Your task to perform on an android device: turn notification dots off Image 0: 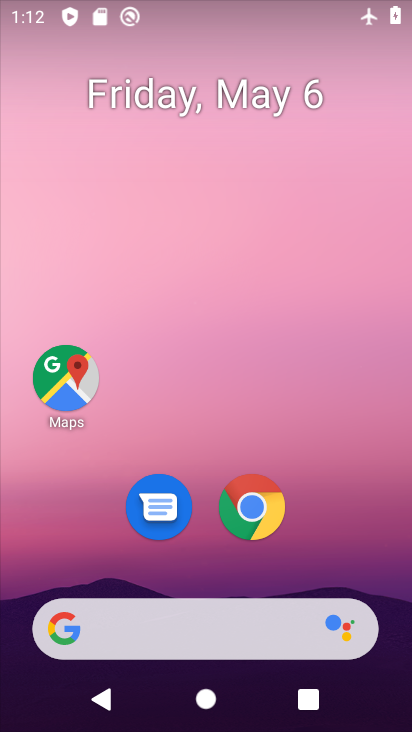
Step 0: drag from (157, 514) to (224, 194)
Your task to perform on an android device: turn notification dots off Image 1: 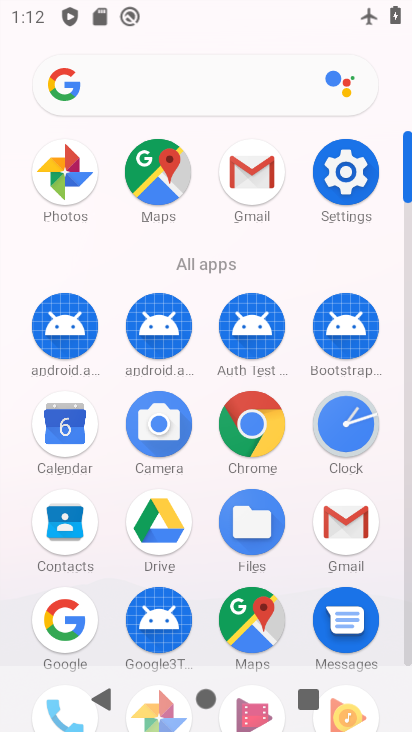
Step 1: click (361, 166)
Your task to perform on an android device: turn notification dots off Image 2: 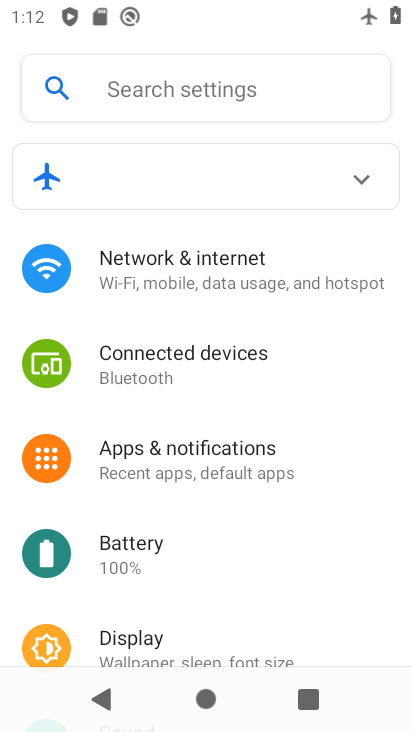
Step 2: drag from (128, 629) to (227, 262)
Your task to perform on an android device: turn notification dots off Image 3: 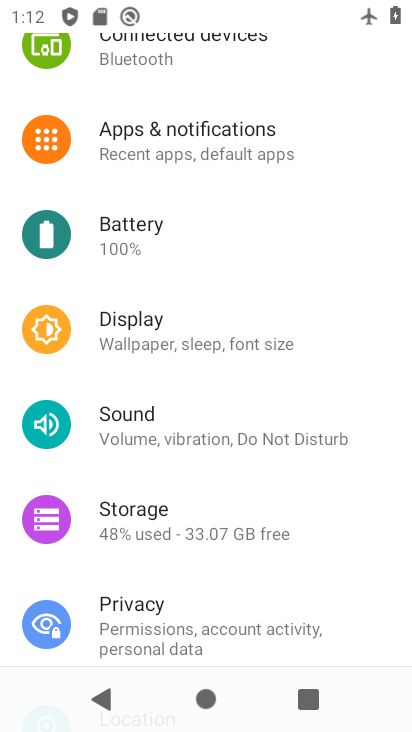
Step 3: click (208, 162)
Your task to perform on an android device: turn notification dots off Image 4: 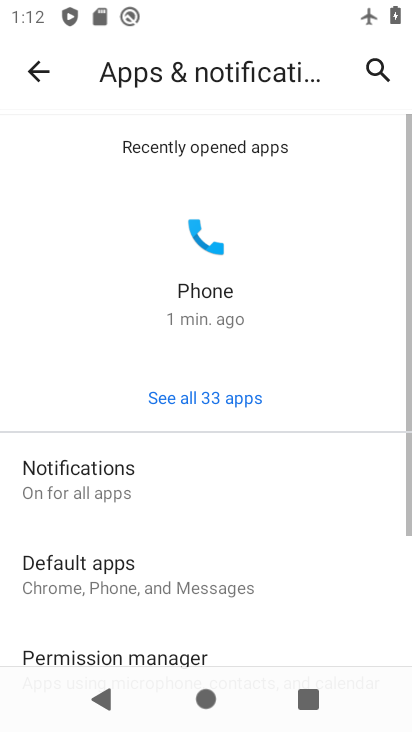
Step 4: drag from (162, 627) to (280, 241)
Your task to perform on an android device: turn notification dots off Image 5: 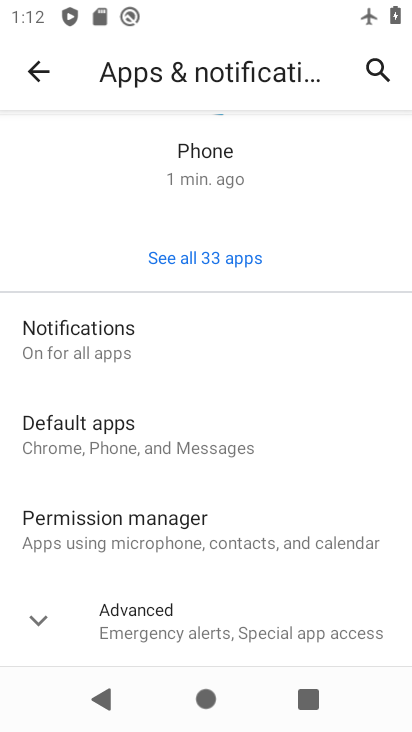
Step 5: click (158, 332)
Your task to perform on an android device: turn notification dots off Image 6: 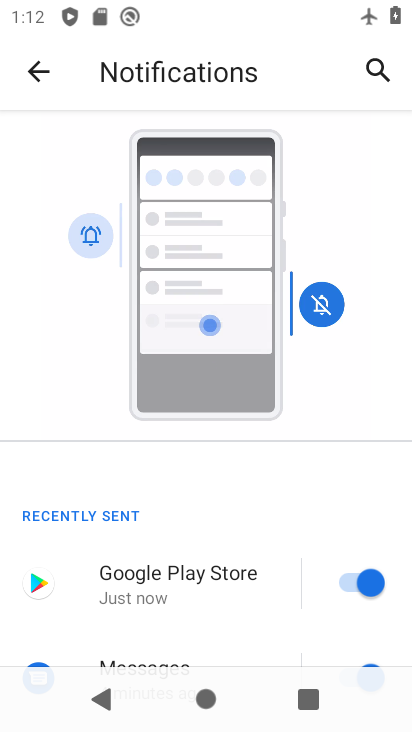
Step 6: drag from (188, 663) to (293, 176)
Your task to perform on an android device: turn notification dots off Image 7: 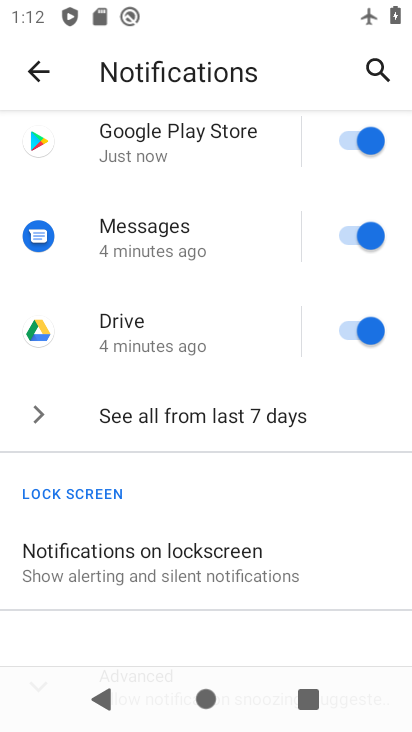
Step 7: drag from (197, 606) to (305, 186)
Your task to perform on an android device: turn notification dots off Image 8: 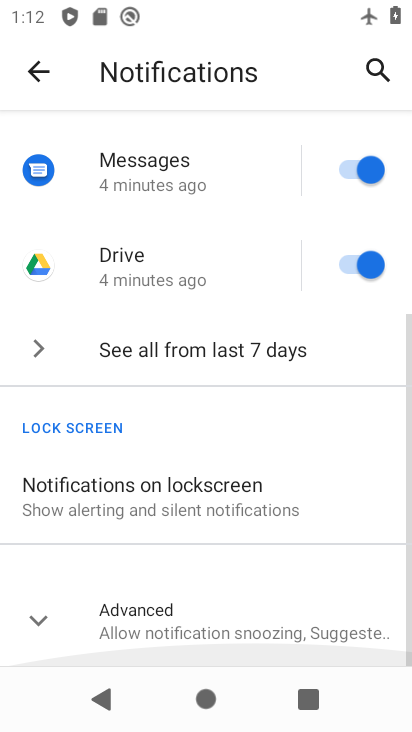
Step 8: click (206, 623)
Your task to perform on an android device: turn notification dots off Image 9: 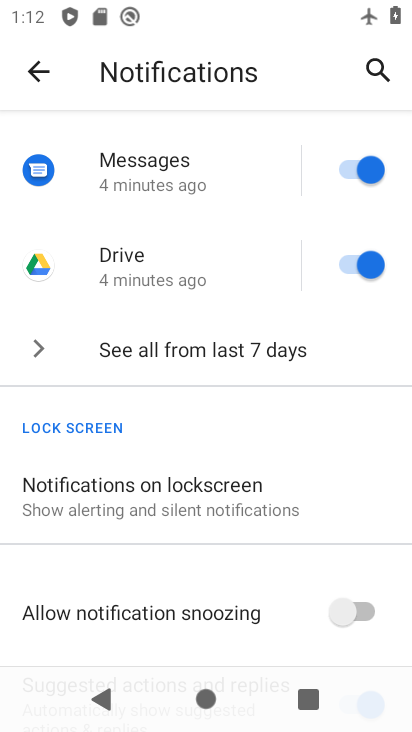
Step 9: drag from (140, 654) to (255, 129)
Your task to perform on an android device: turn notification dots off Image 10: 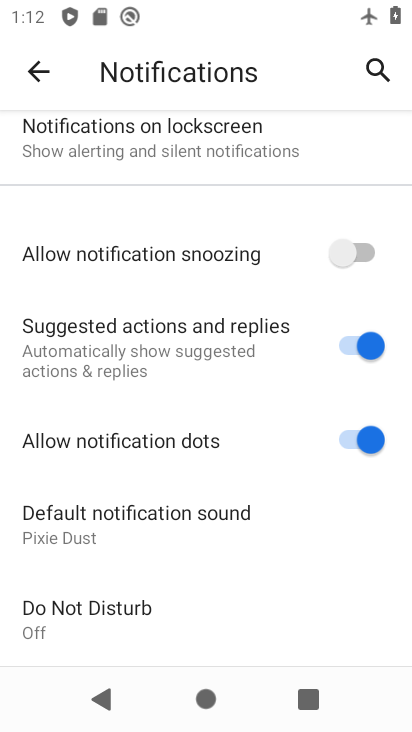
Step 10: click (353, 431)
Your task to perform on an android device: turn notification dots off Image 11: 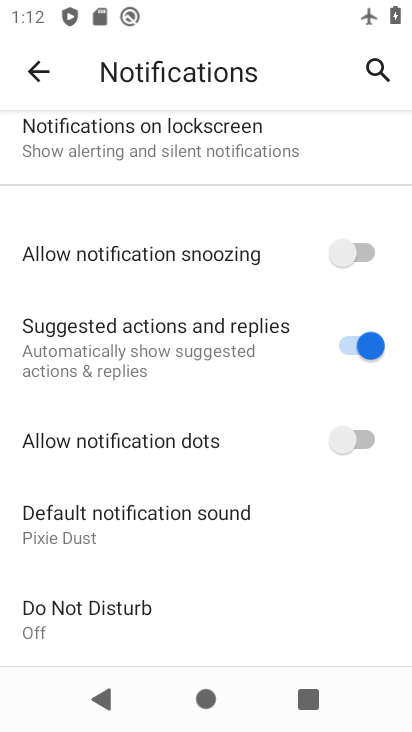
Step 11: task complete